Your task to perform on an android device: change notification settings in the gmail app Image 0: 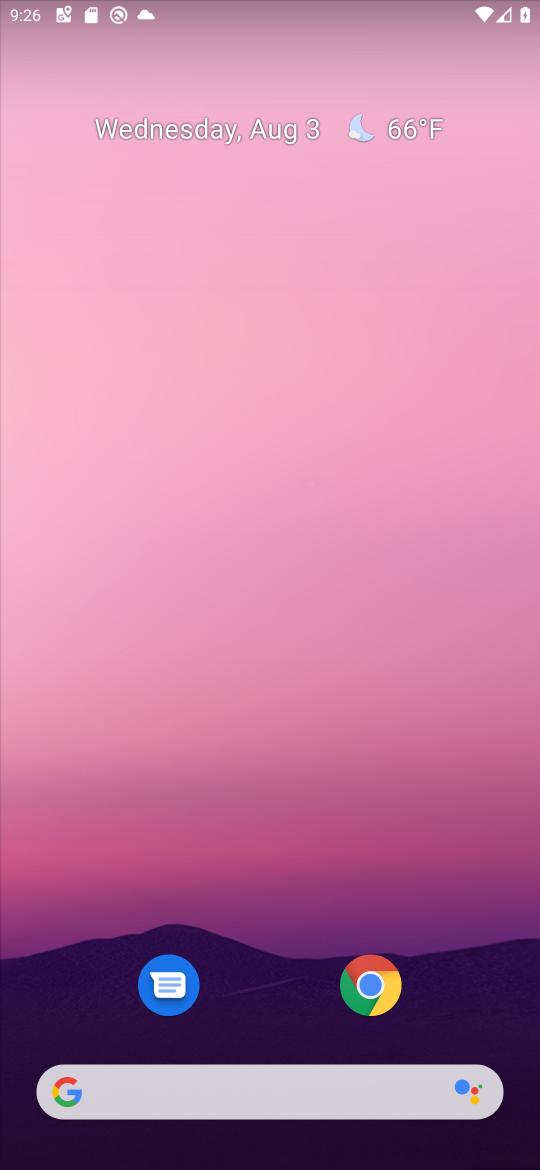
Step 0: drag from (272, 998) to (291, 139)
Your task to perform on an android device: change notification settings in the gmail app Image 1: 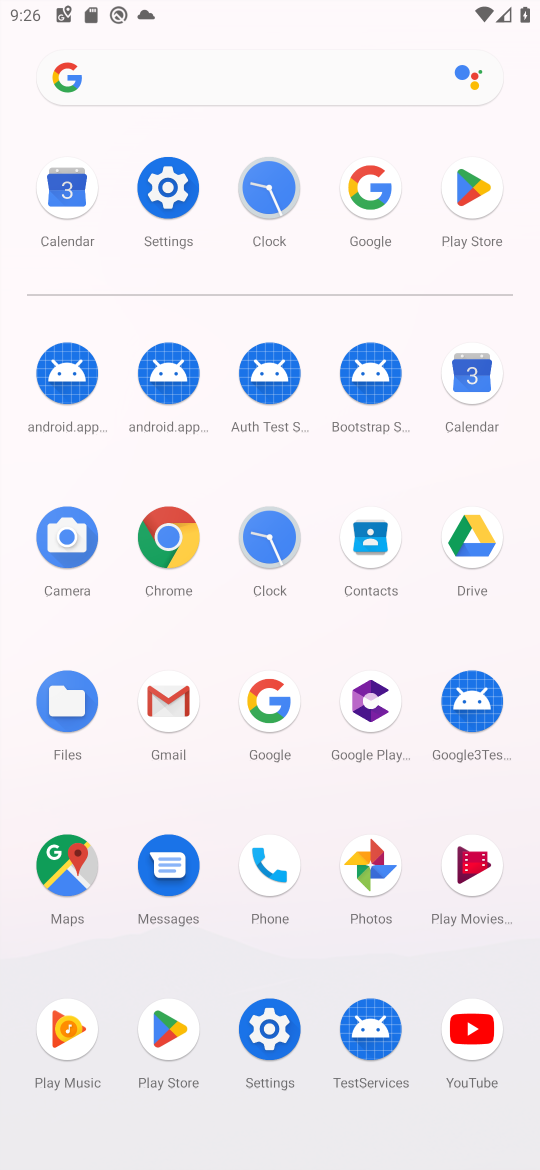
Step 1: click (187, 711)
Your task to perform on an android device: change notification settings in the gmail app Image 2: 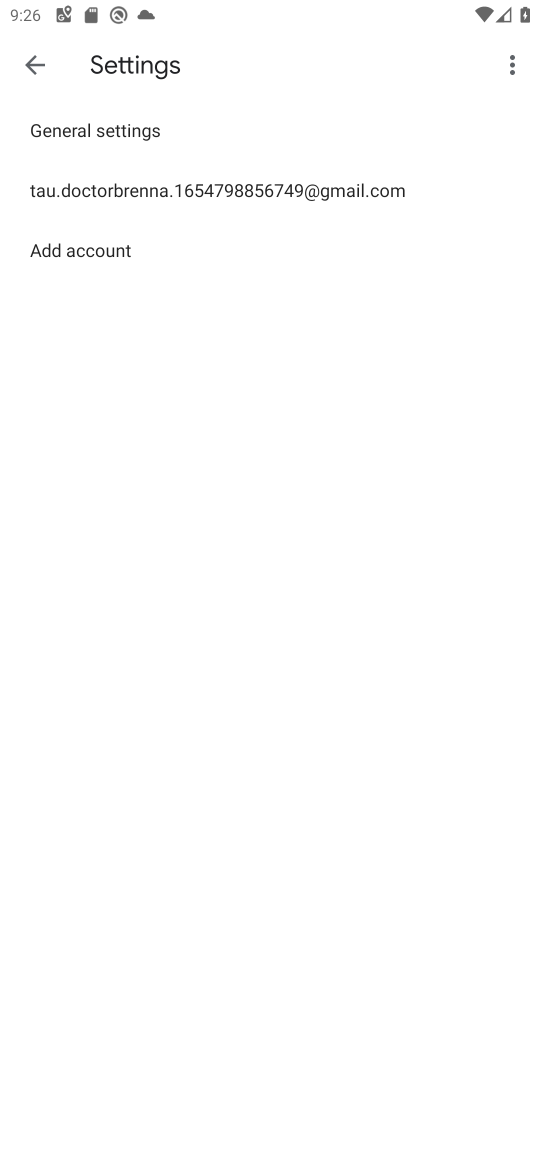
Step 2: click (285, 197)
Your task to perform on an android device: change notification settings in the gmail app Image 3: 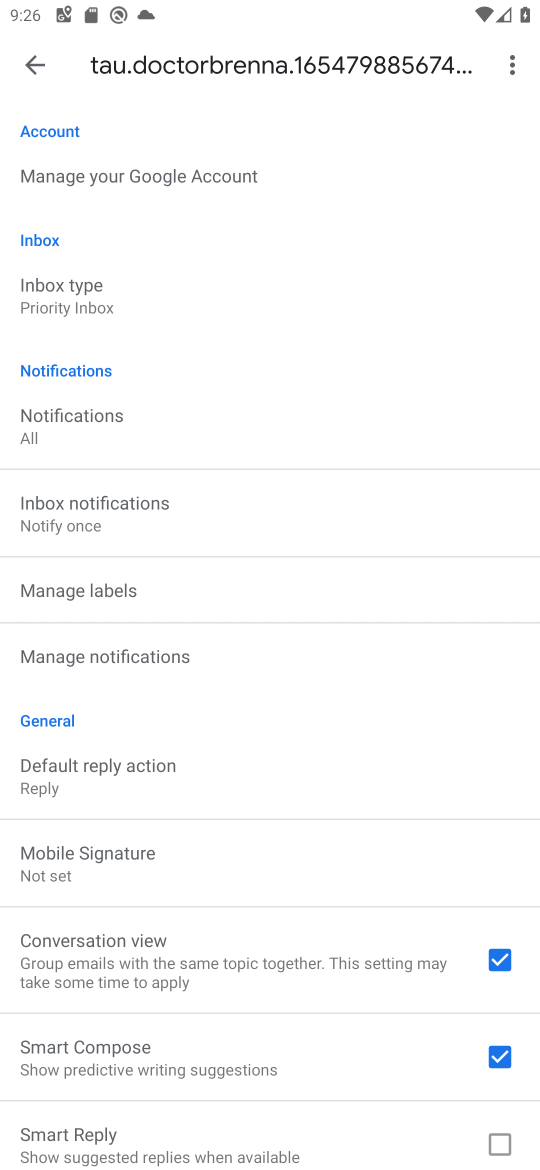
Step 3: click (177, 667)
Your task to perform on an android device: change notification settings in the gmail app Image 4: 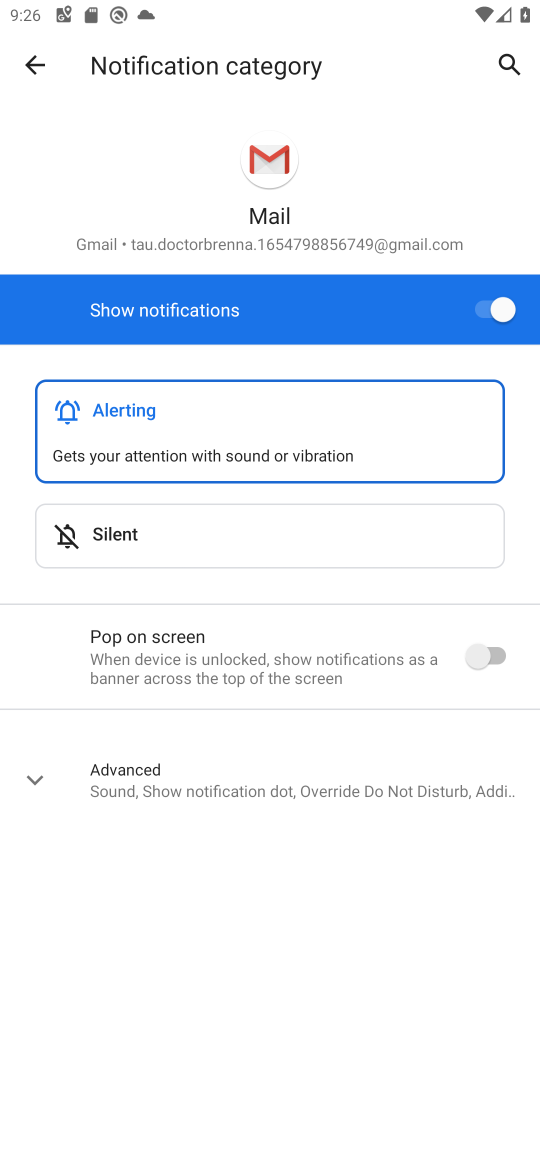
Step 4: click (495, 302)
Your task to perform on an android device: change notification settings in the gmail app Image 5: 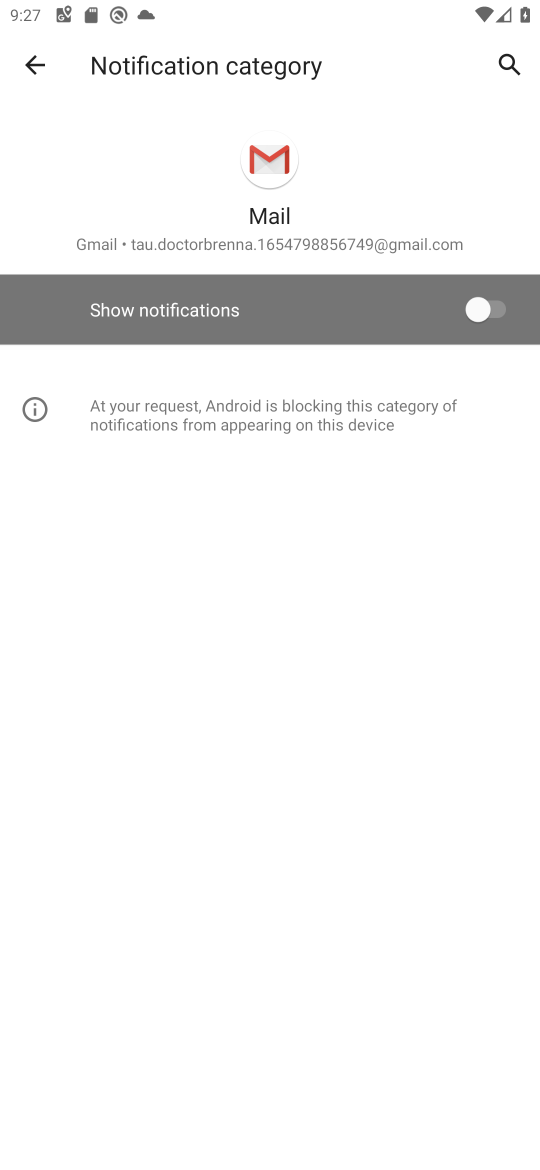
Step 5: task complete